Your task to perform on an android device: turn on location history Image 0: 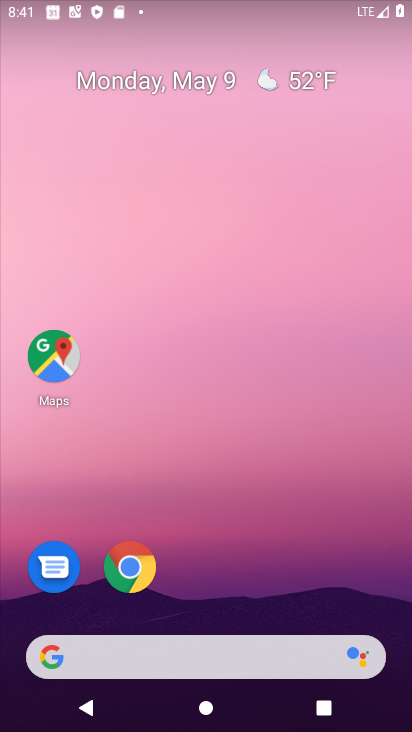
Step 0: drag from (298, 586) to (239, 147)
Your task to perform on an android device: turn on location history Image 1: 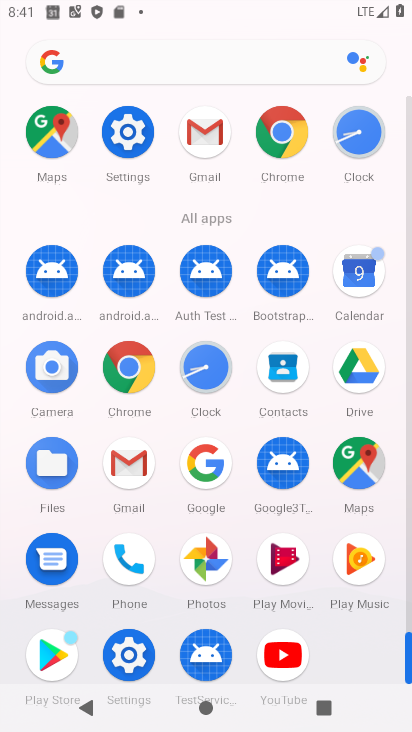
Step 1: click (120, 639)
Your task to perform on an android device: turn on location history Image 2: 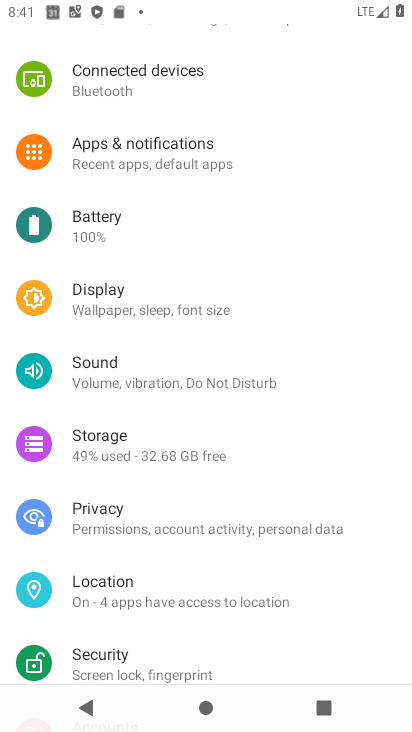
Step 2: drag from (229, 629) to (193, 389)
Your task to perform on an android device: turn on location history Image 3: 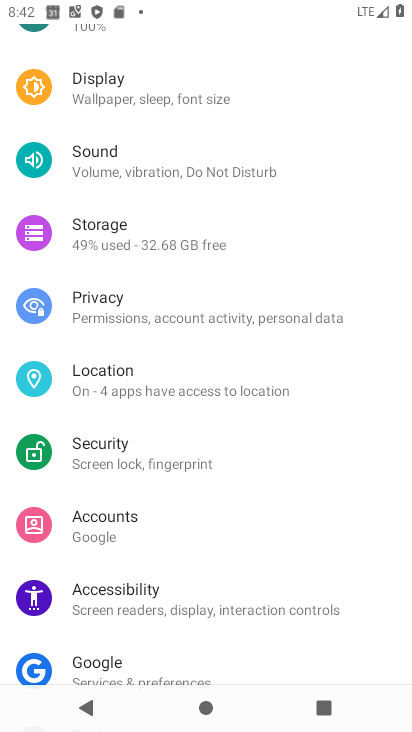
Step 3: click (111, 390)
Your task to perform on an android device: turn on location history Image 4: 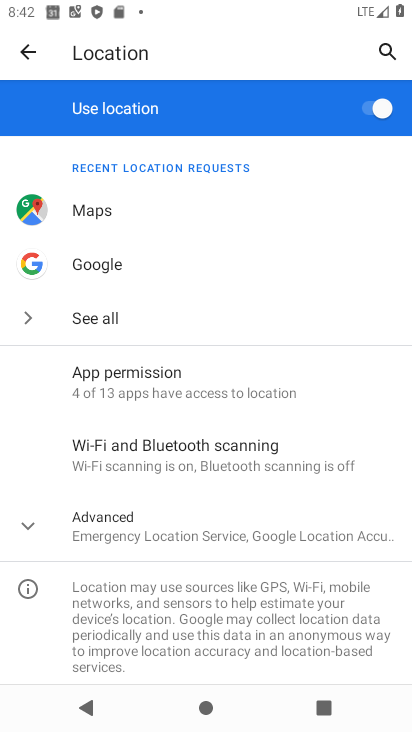
Step 4: click (154, 523)
Your task to perform on an android device: turn on location history Image 5: 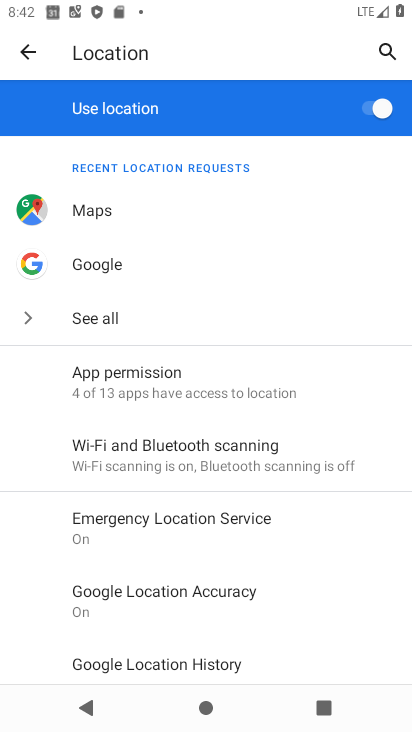
Step 5: click (183, 655)
Your task to perform on an android device: turn on location history Image 6: 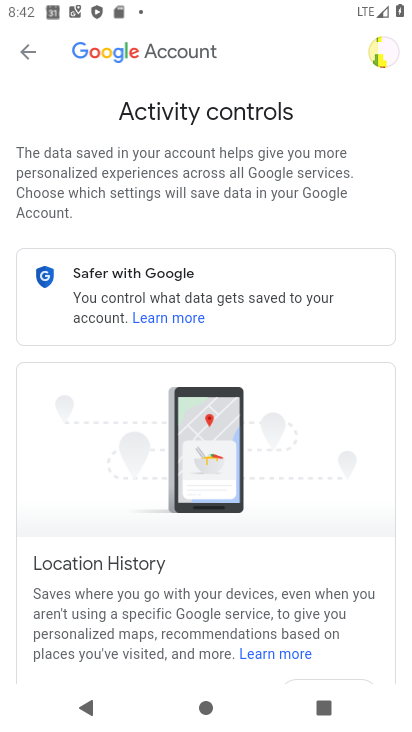
Step 6: task complete